Your task to perform on an android device: refresh tabs in the chrome app Image 0: 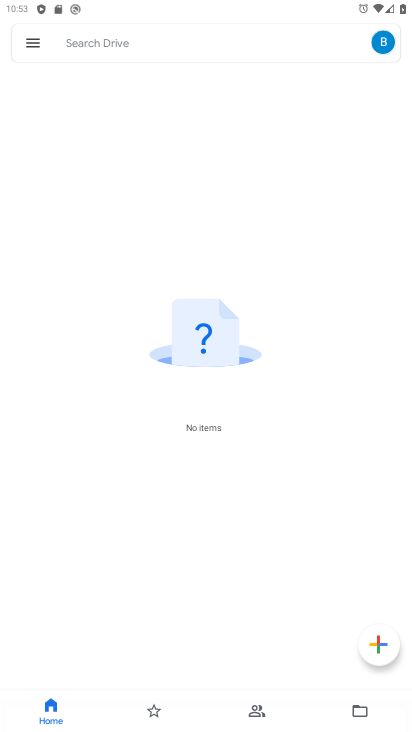
Step 0: press home button
Your task to perform on an android device: refresh tabs in the chrome app Image 1: 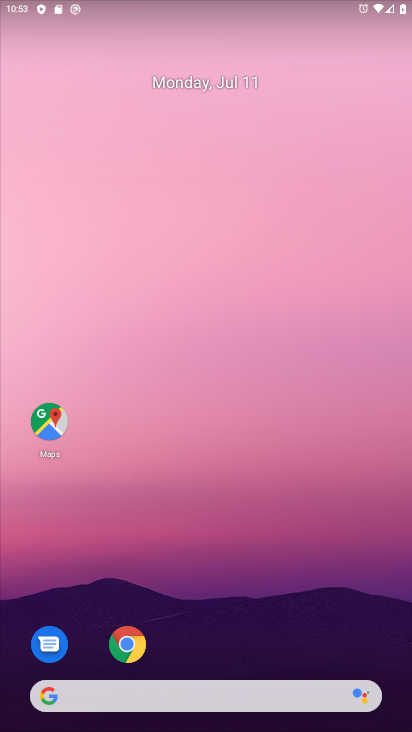
Step 1: drag from (218, 657) to (305, 107)
Your task to perform on an android device: refresh tabs in the chrome app Image 2: 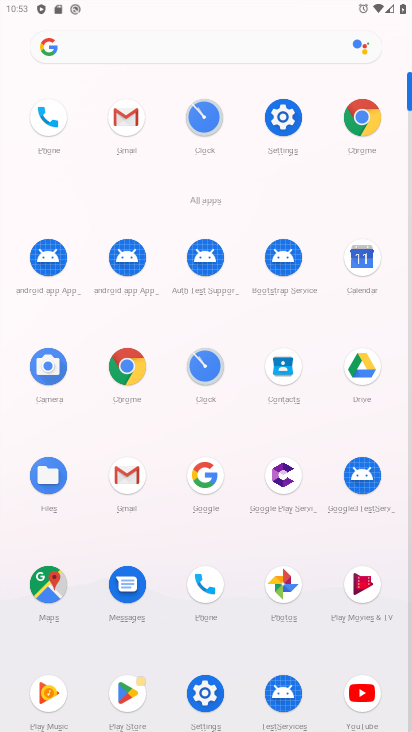
Step 2: click (369, 124)
Your task to perform on an android device: refresh tabs in the chrome app Image 3: 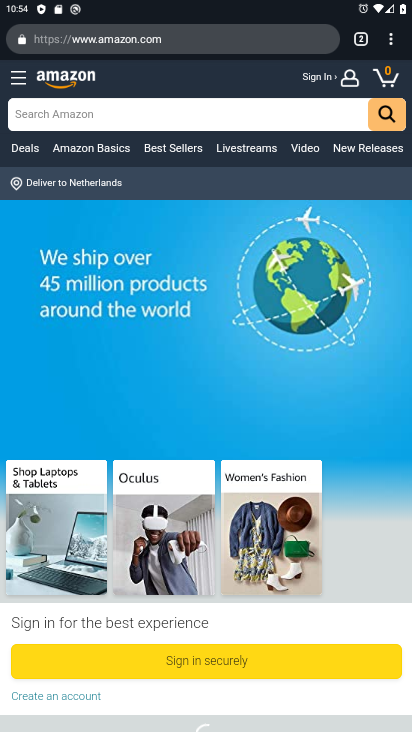
Step 3: click (390, 47)
Your task to perform on an android device: refresh tabs in the chrome app Image 4: 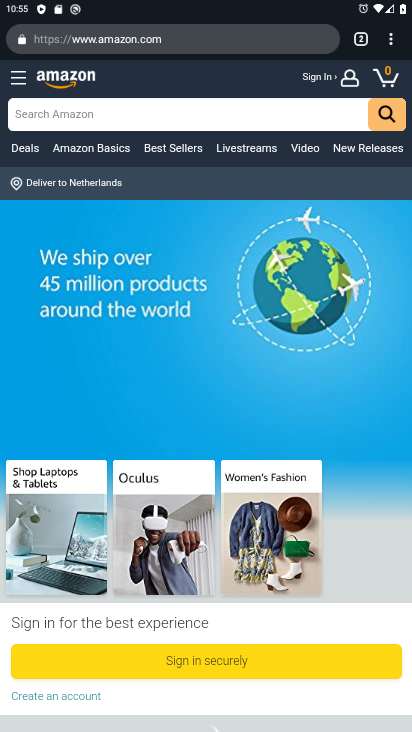
Step 4: click (386, 37)
Your task to perform on an android device: refresh tabs in the chrome app Image 5: 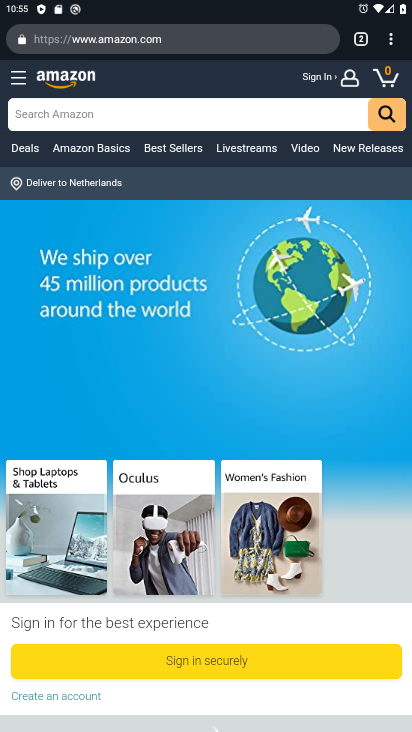
Step 5: task complete